Your task to perform on an android device: What's on my calendar tomorrow? Image 0: 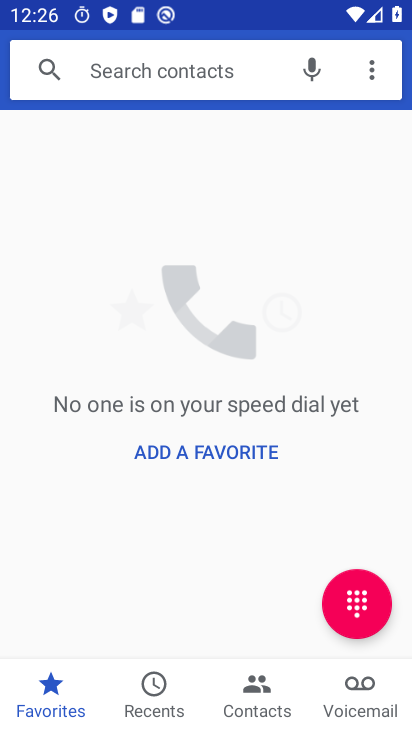
Step 0: press back button
Your task to perform on an android device: What's on my calendar tomorrow? Image 1: 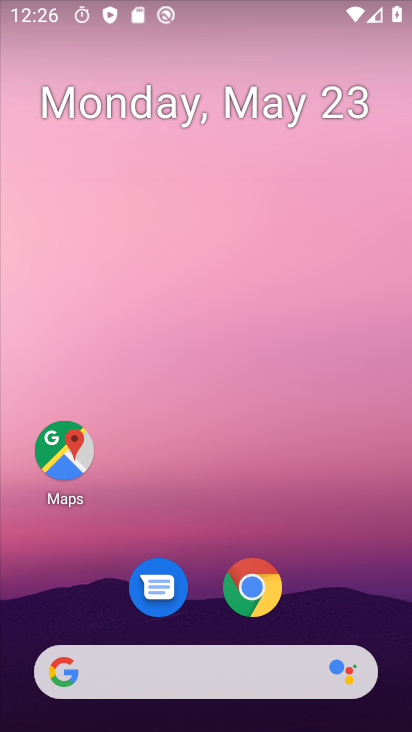
Step 1: drag from (228, 599) to (270, 24)
Your task to perform on an android device: What's on my calendar tomorrow? Image 2: 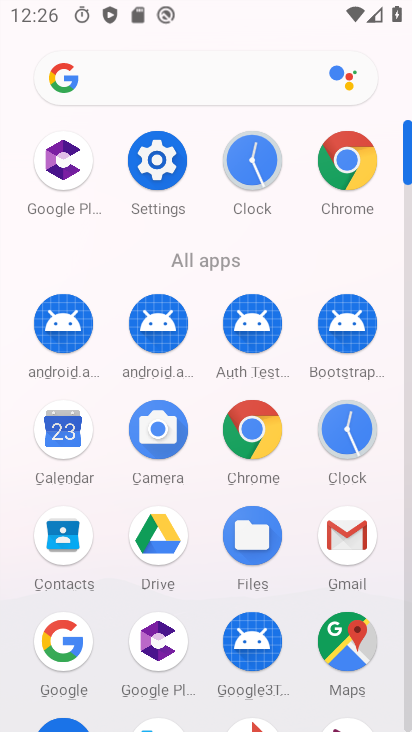
Step 2: click (72, 430)
Your task to perform on an android device: What's on my calendar tomorrow? Image 3: 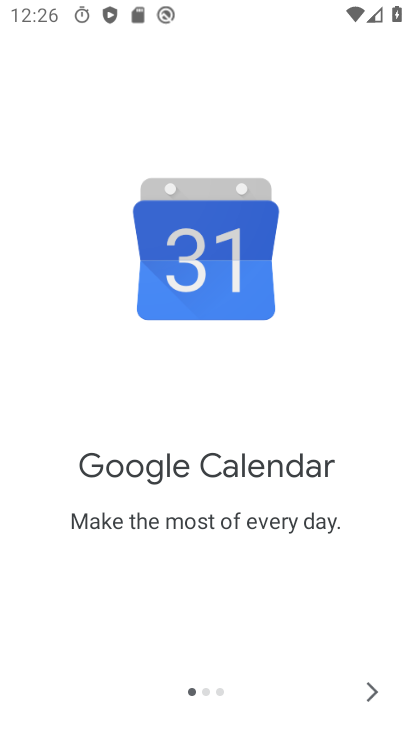
Step 3: click (367, 674)
Your task to perform on an android device: What's on my calendar tomorrow? Image 4: 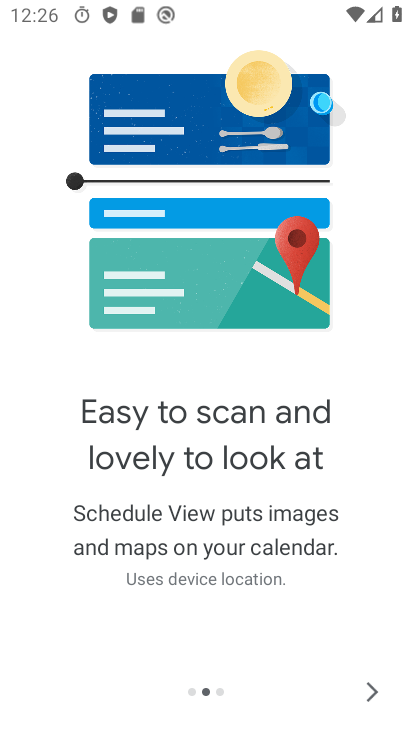
Step 4: click (366, 681)
Your task to perform on an android device: What's on my calendar tomorrow? Image 5: 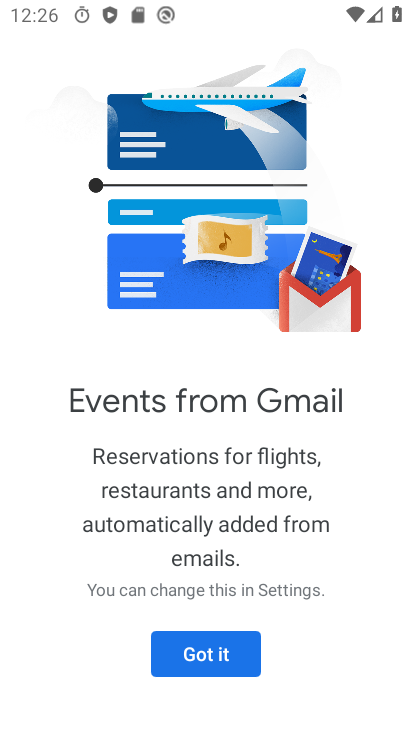
Step 5: click (212, 647)
Your task to perform on an android device: What's on my calendar tomorrow? Image 6: 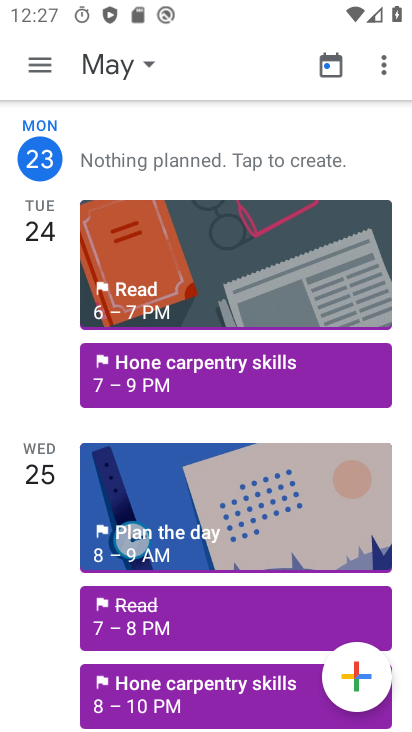
Step 6: task complete